Your task to perform on an android device: Open Maps and search for coffee Image 0: 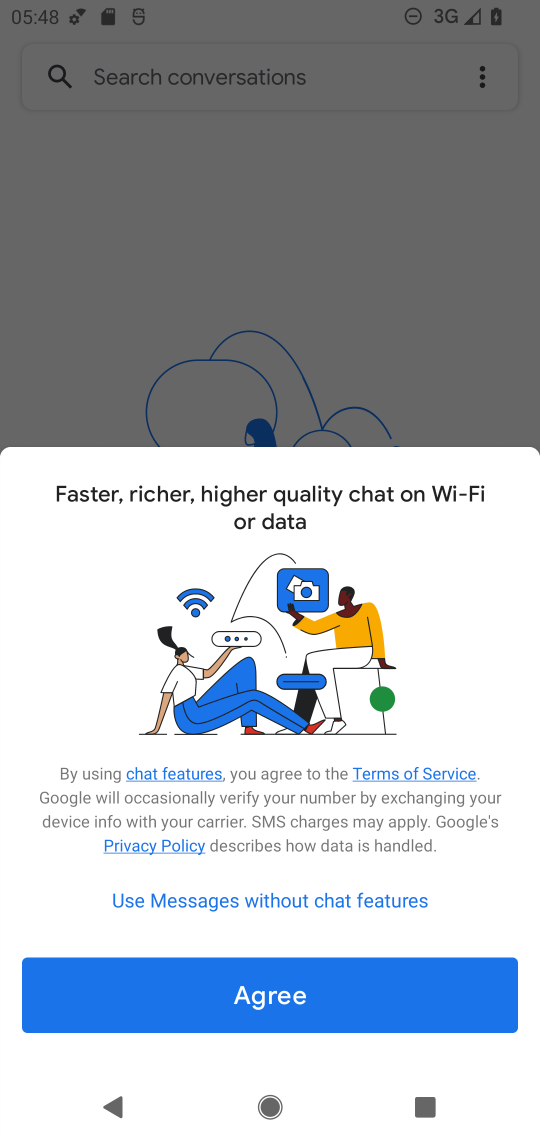
Step 0: press home button
Your task to perform on an android device: Open Maps and search for coffee Image 1: 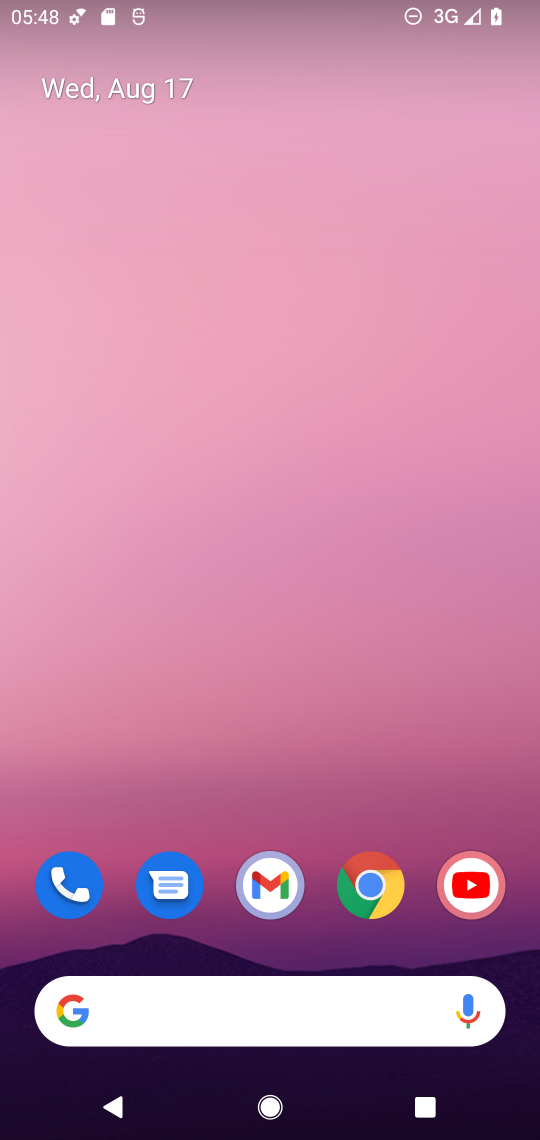
Step 1: drag from (346, 795) to (463, 69)
Your task to perform on an android device: Open Maps and search for coffee Image 2: 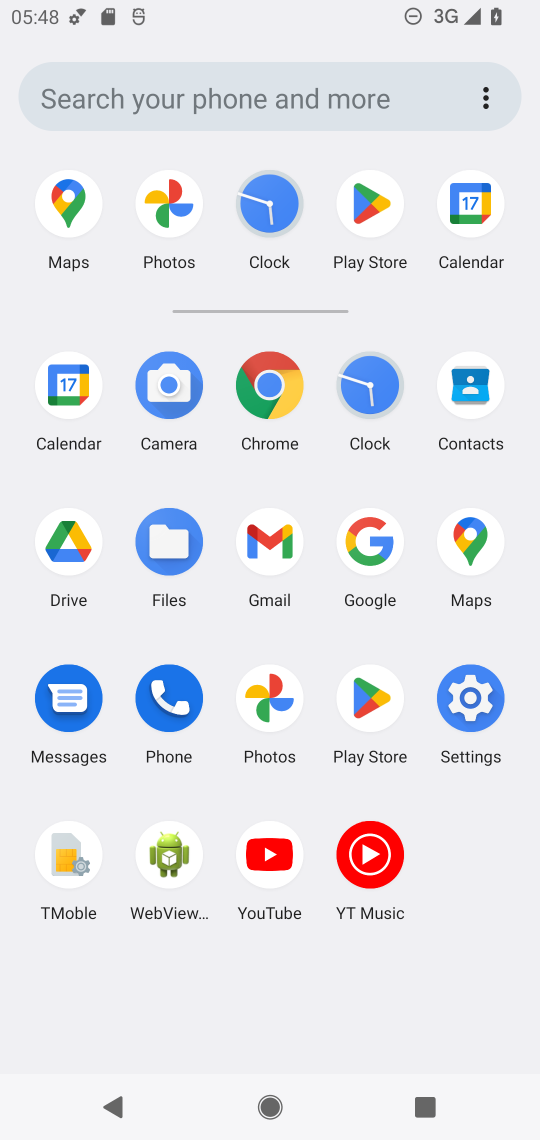
Step 2: click (475, 537)
Your task to perform on an android device: Open Maps and search for coffee Image 3: 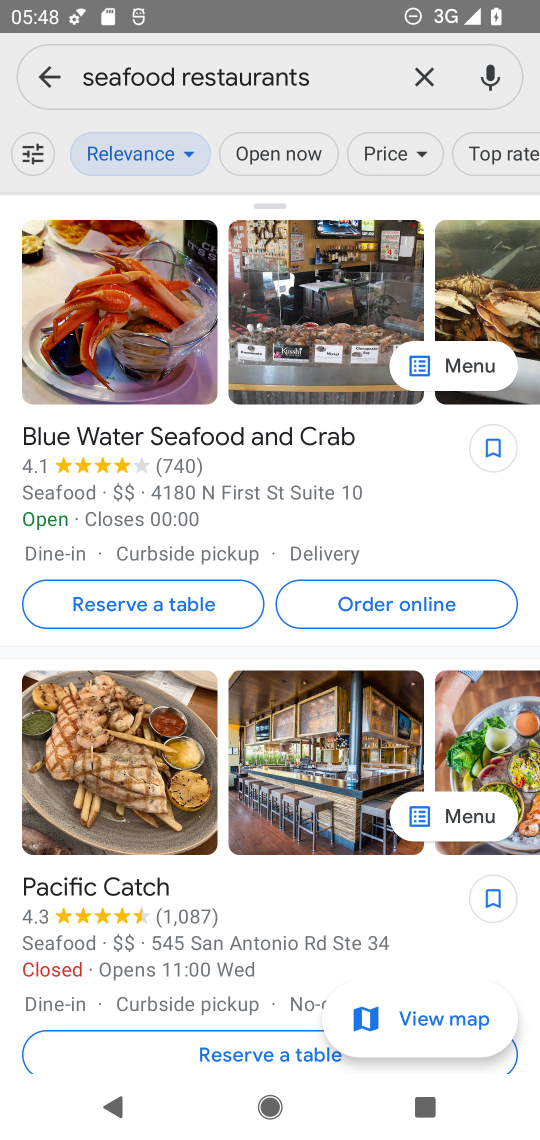
Step 3: click (431, 71)
Your task to perform on an android device: Open Maps and search for coffee Image 4: 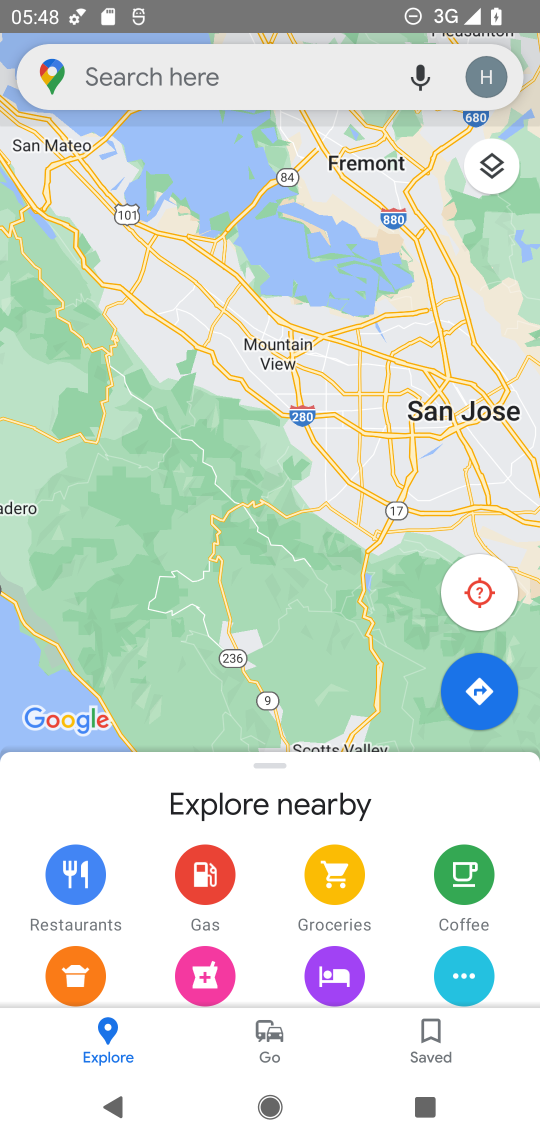
Step 4: click (212, 56)
Your task to perform on an android device: Open Maps and search for coffee Image 5: 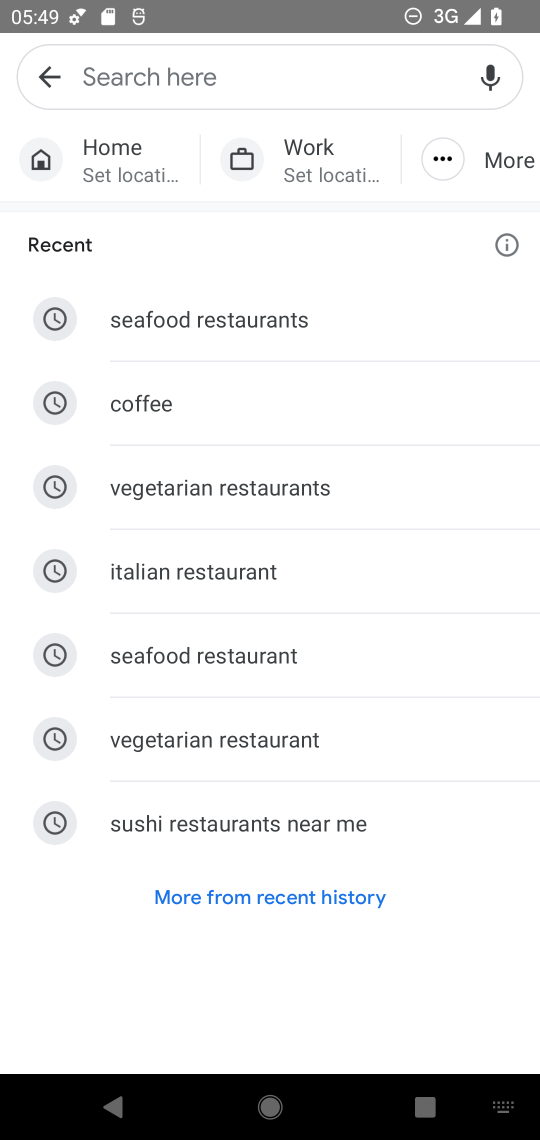
Step 5: click (172, 395)
Your task to perform on an android device: Open Maps and search for coffee Image 6: 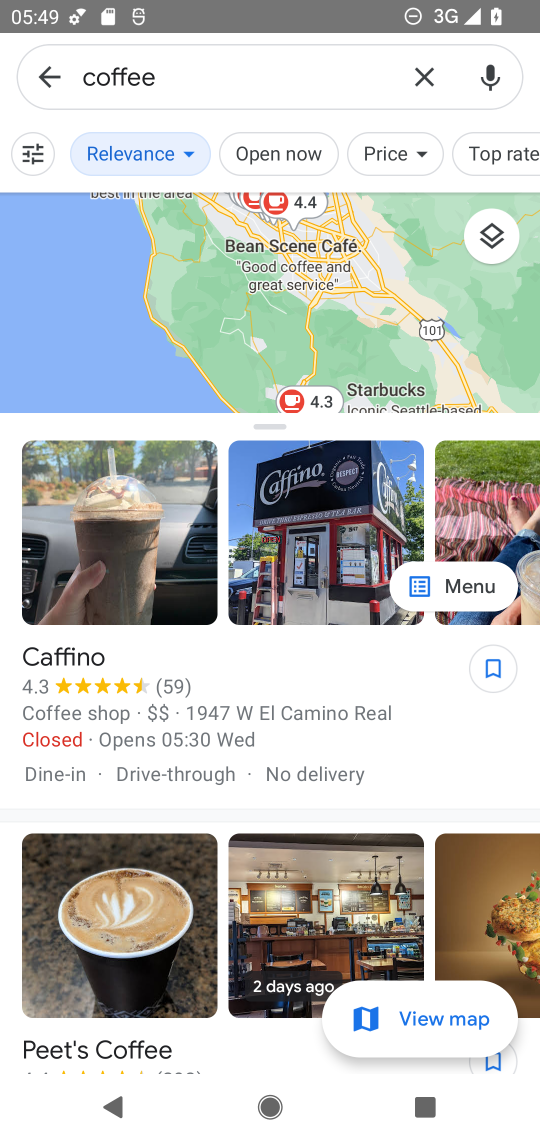
Step 6: task complete